Your task to perform on an android device: Clear all items from cart on costco.com. Image 0: 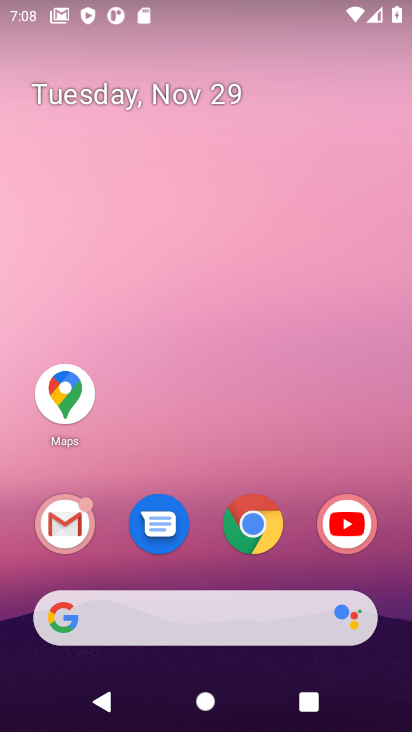
Step 0: click (249, 531)
Your task to perform on an android device: Clear all items from cart on costco.com. Image 1: 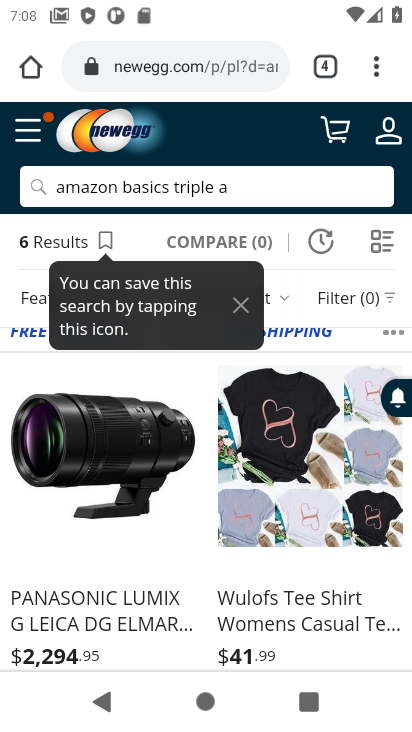
Step 1: click (184, 64)
Your task to perform on an android device: Clear all items from cart on costco.com. Image 2: 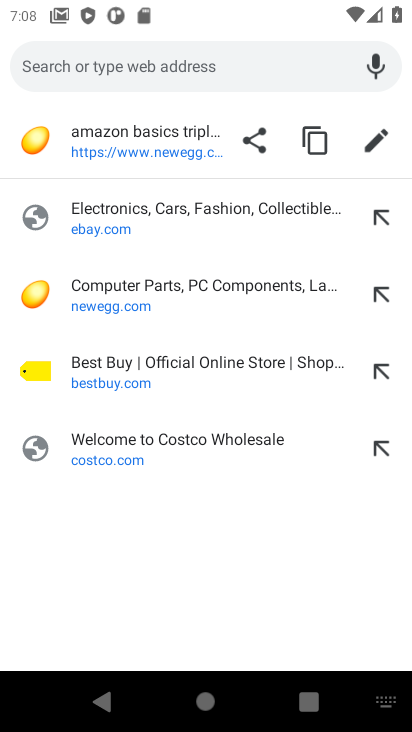
Step 2: click (90, 440)
Your task to perform on an android device: Clear all items from cart on costco.com. Image 3: 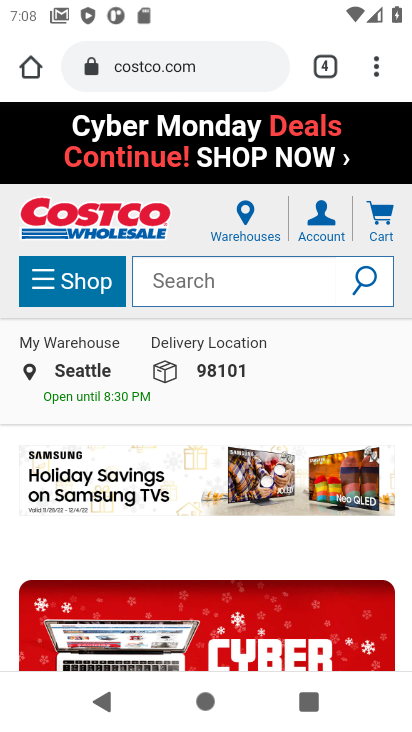
Step 3: click (382, 225)
Your task to perform on an android device: Clear all items from cart on costco.com. Image 4: 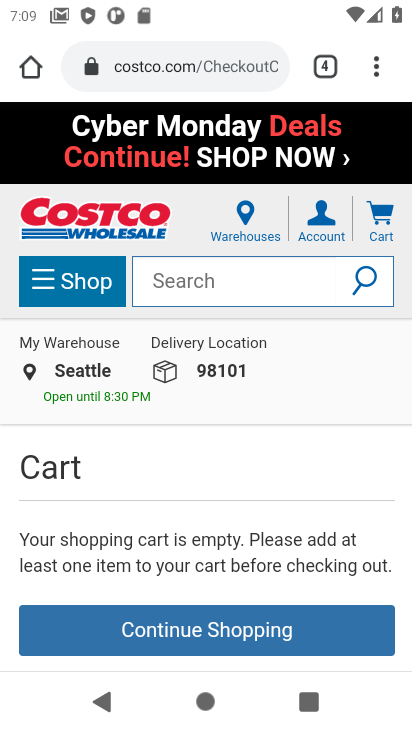
Step 4: task complete